Your task to perform on an android device: check the backup settings in the google photos Image 0: 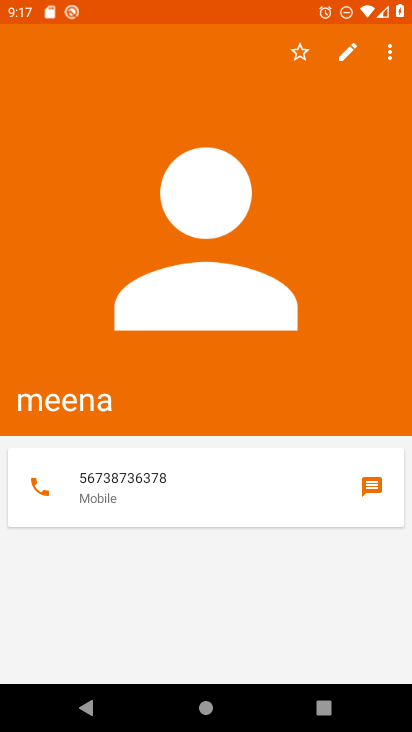
Step 0: press home button
Your task to perform on an android device: check the backup settings in the google photos Image 1: 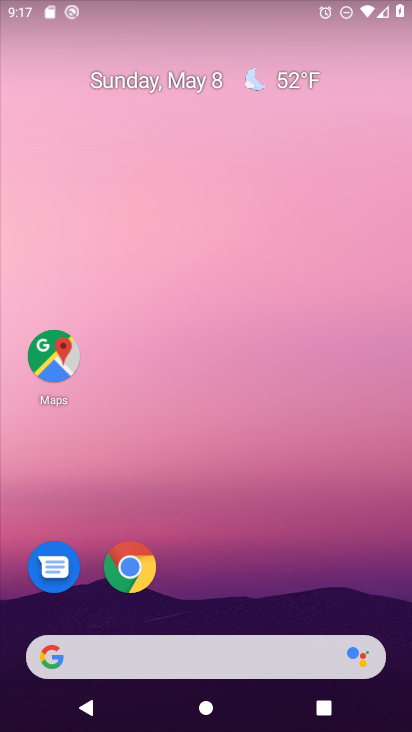
Step 1: drag from (282, 571) to (262, 93)
Your task to perform on an android device: check the backup settings in the google photos Image 2: 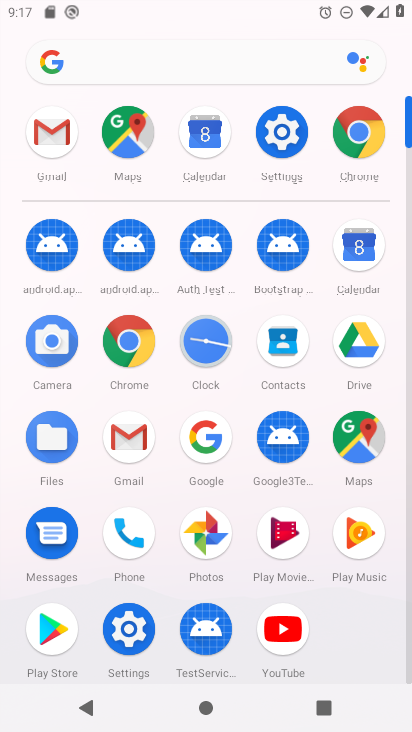
Step 2: click (190, 548)
Your task to perform on an android device: check the backup settings in the google photos Image 3: 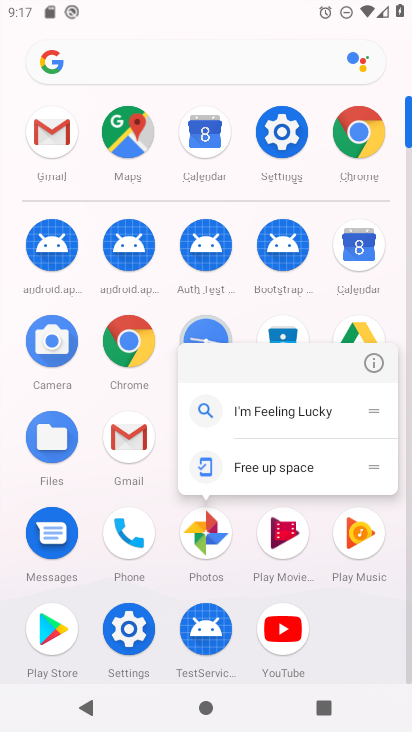
Step 3: click (191, 537)
Your task to perform on an android device: check the backup settings in the google photos Image 4: 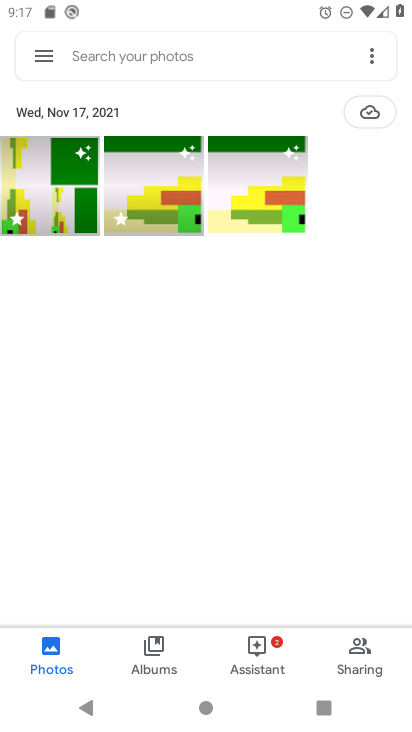
Step 4: click (42, 61)
Your task to perform on an android device: check the backup settings in the google photos Image 5: 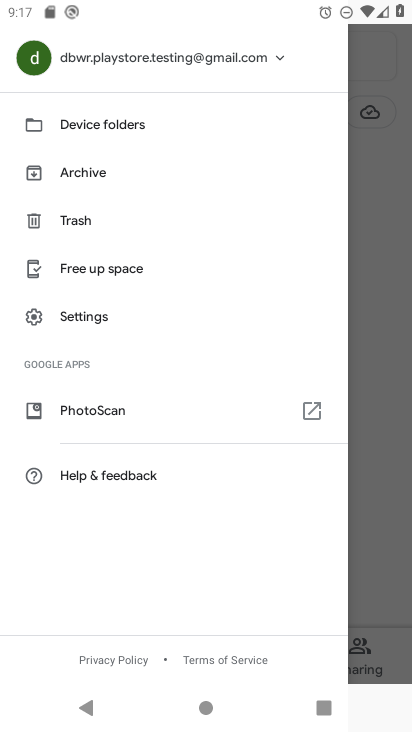
Step 5: click (68, 318)
Your task to perform on an android device: check the backup settings in the google photos Image 6: 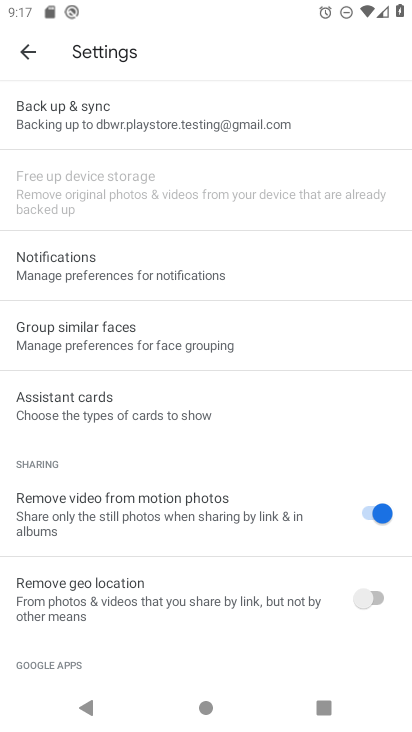
Step 6: click (50, 116)
Your task to perform on an android device: check the backup settings in the google photos Image 7: 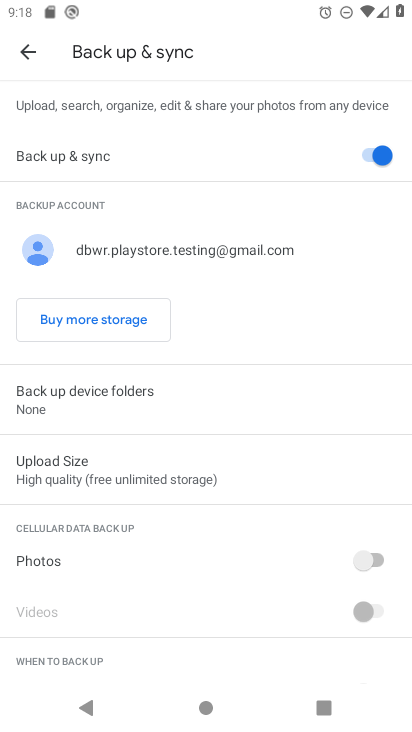
Step 7: task complete